Your task to perform on an android device: Go to Yahoo.com Image 0: 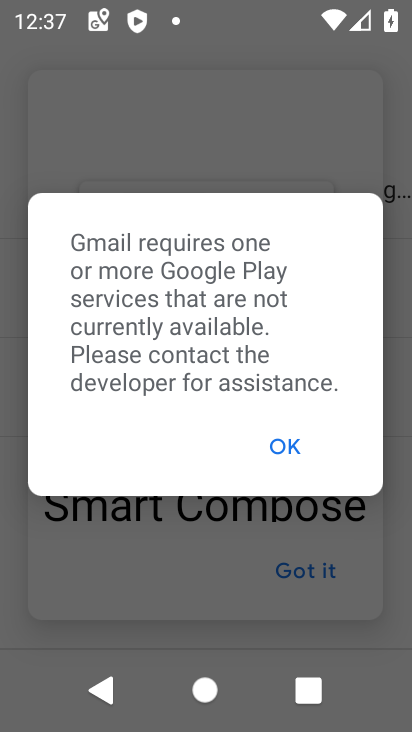
Step 0: press home button
Your task to perform on an android device: Go to Yahoo.com Image 1: 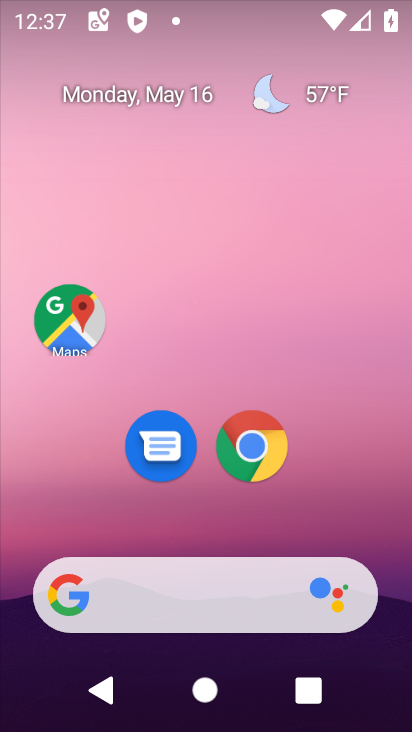
Step 1: click (235, 455)
Your task to perform on an android device: Go to Yahoo.com Image 2: 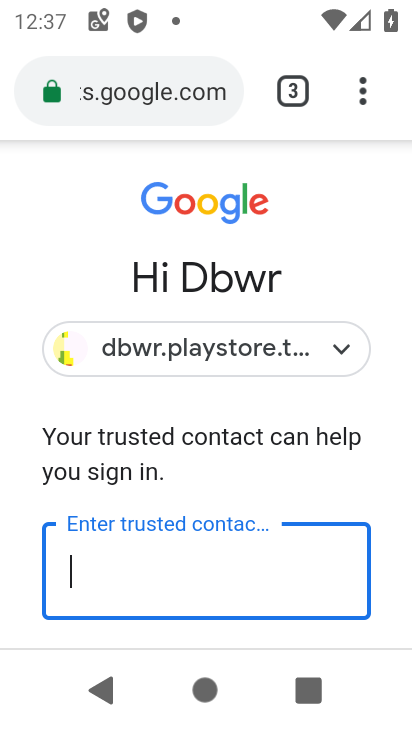
Step 2: click (135, 94)
Your task to perform on an android device: Go to Yahoo.com Image 3: 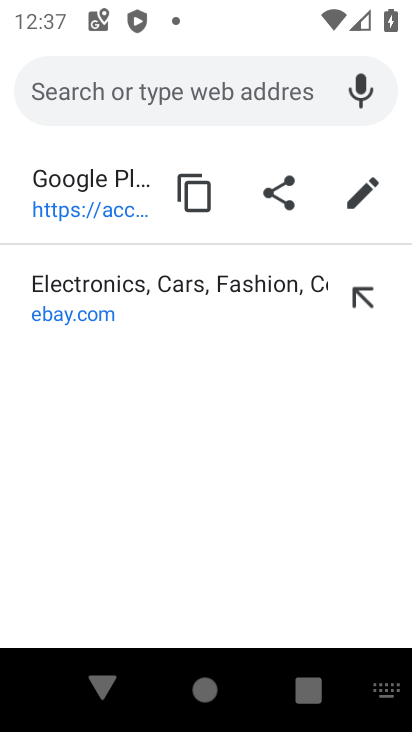
Step 3: type "yahoo.com"
Your task to perform on an android device: Go to Yahoo.com Image 4: 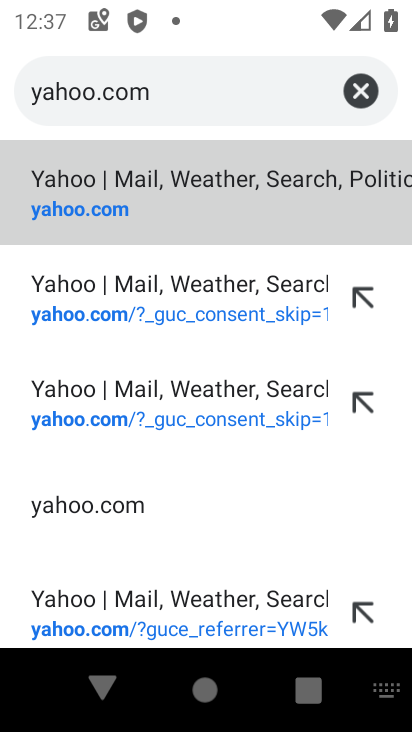
Step 4: click (174, 498)
Your task to perform on an android device: Go to Yahoo.com Image 5: 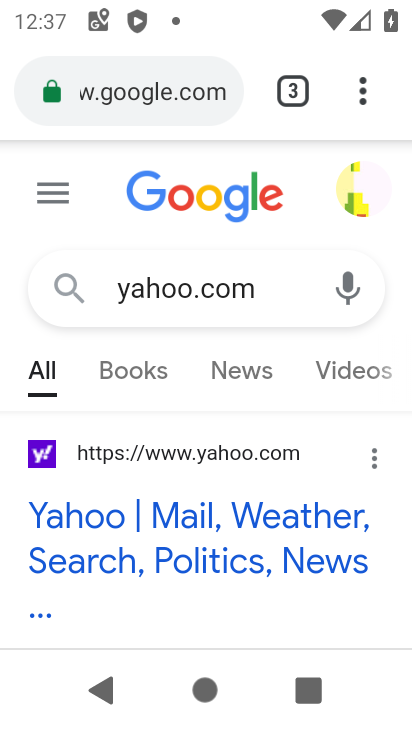
Step 5: click (172, 590)
Your task to perform on an android device: Go to Yahoo.com Image 6: 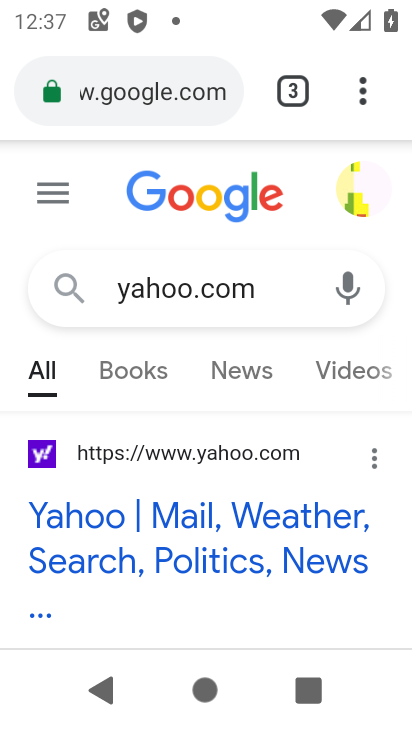
Step 6: task complete